Your task to perform on an android device: turn off improve location accuracy Image 0: 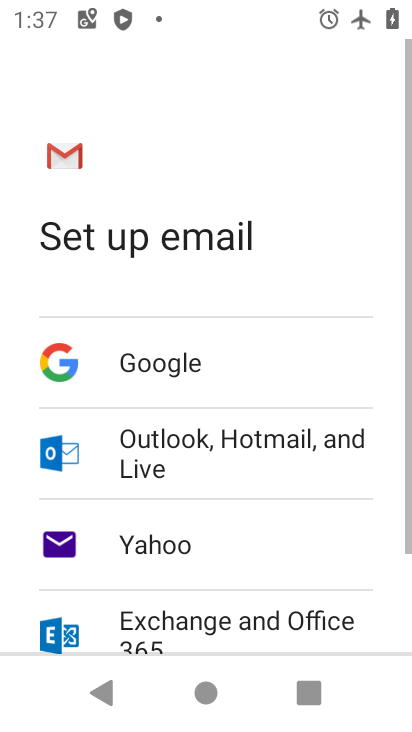
Step 0: press home button
Your task to perform on an android device: turn off improve location accuracy Image 1: 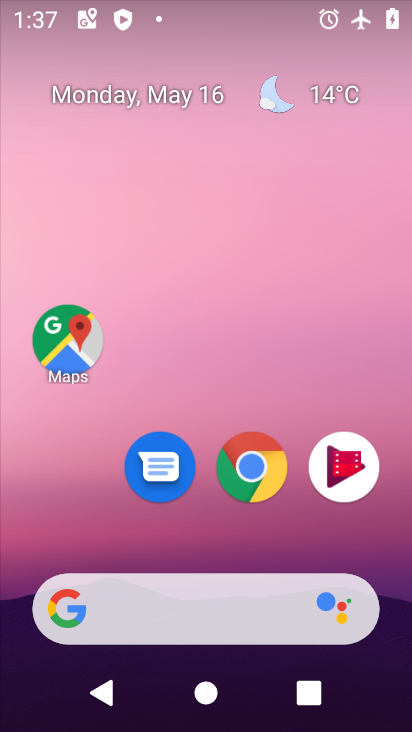
Step 1: drag from (298, 509) to (278, 202)
Your task to perform on an android device: turn off improve location accuracy Image 2: 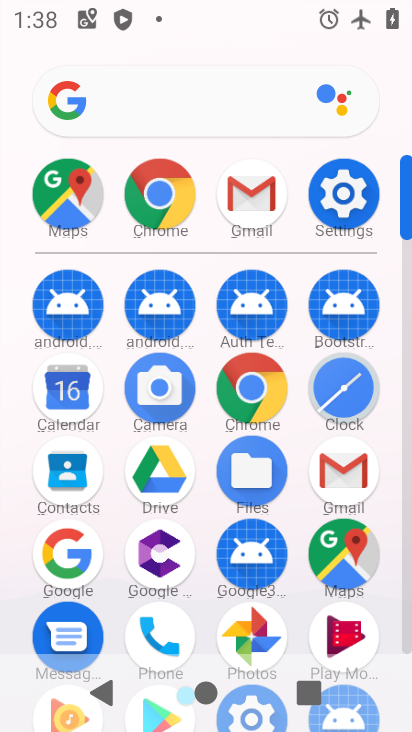
Step 2: click (343, 199)
Your task to perform on an android device: turn off improve location accuracy Image 3: 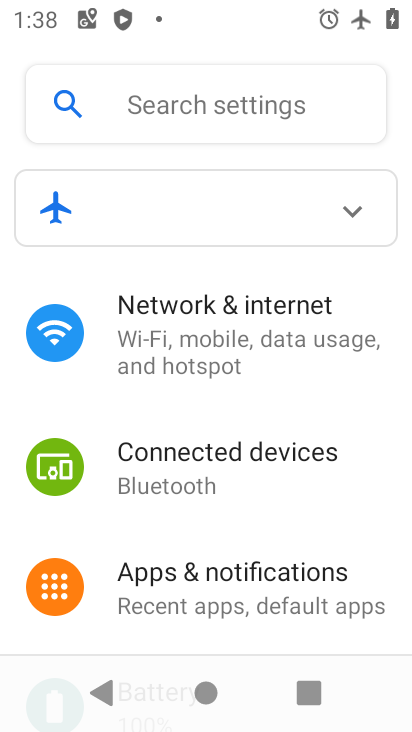
Step 3: drag from (175, 527) to (235, 248)
Your task to perform on an android device: turn off improve location accuracy Image 4: 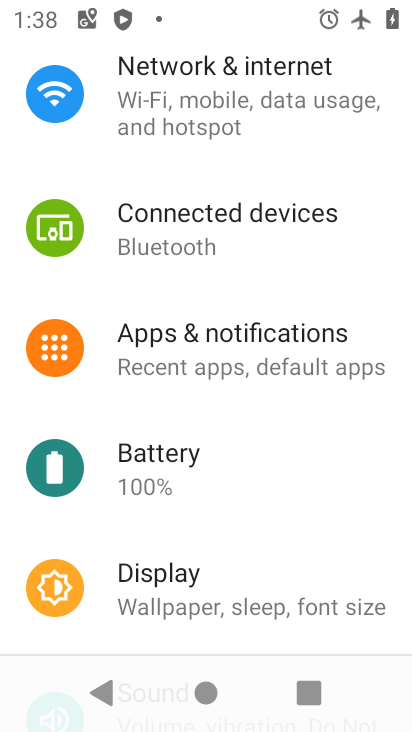
Step 4: drag from (174, 575) to (234, 284)
Your task to perform on an android device: turn off improve location accuracy Image 5: 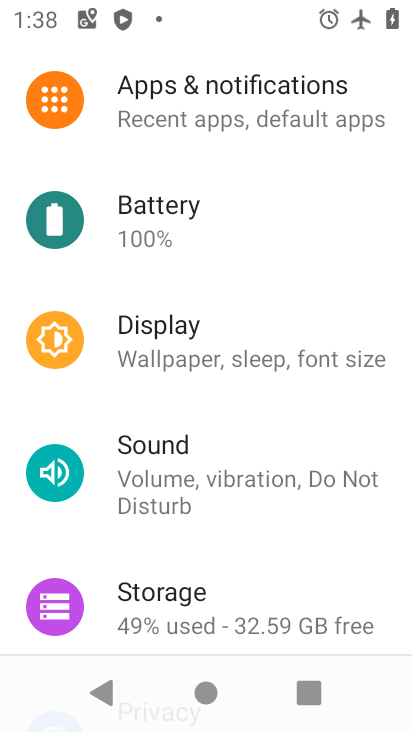
Step 5: drag from (198, 568) to (245, 263)
Your task to perform on an android device: turn off improve location accuracy Image 6: 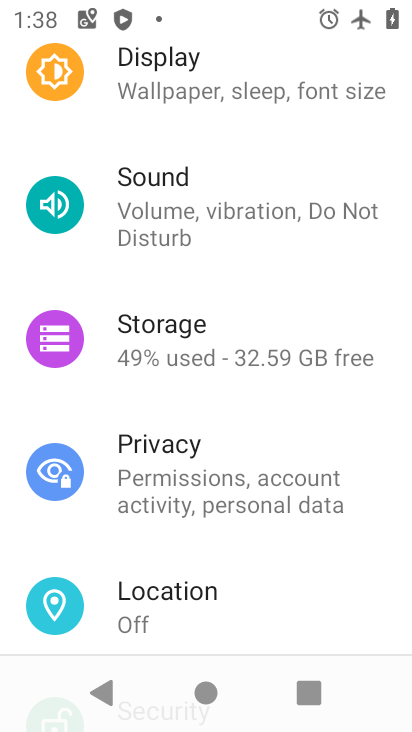
Step 6: drag from (205, 547) to (233, 341)
Your task to perform on an android device: turn off improve location accuracy Image 7: 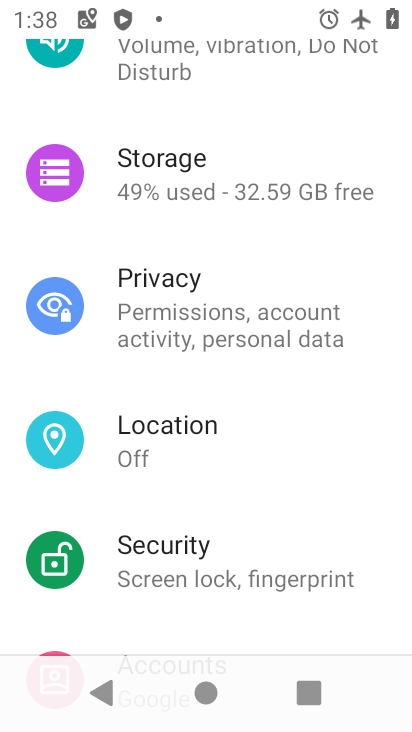
Step 7: click (167, 431)
Your task to perform on an android device: turn off improve location accuracy Image 8: 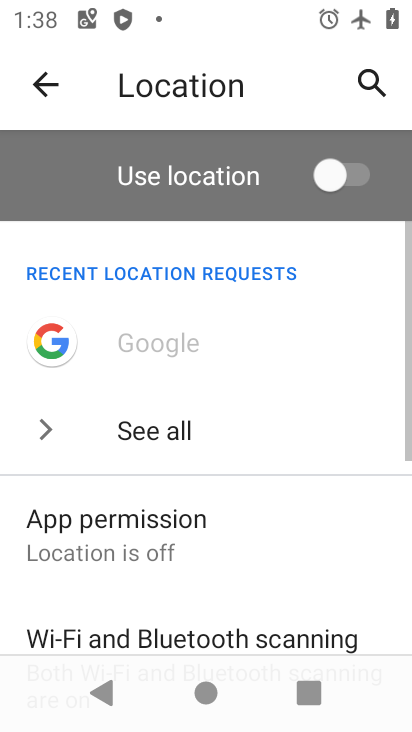
Step 8: drag from (223, 570) to (286, 251)
Your task to perform on an android device: turn off improve location accuracy Image 9: 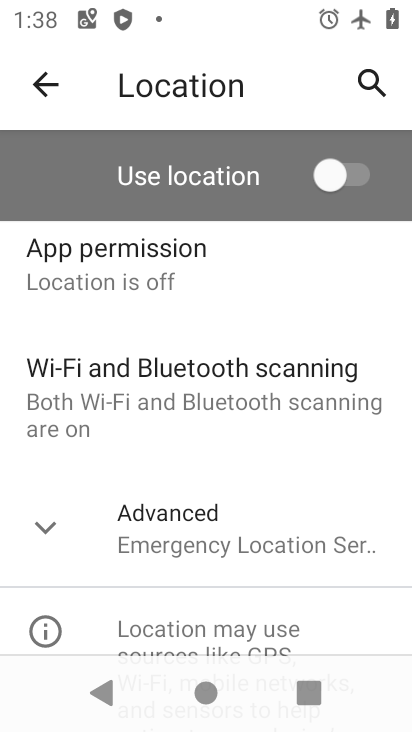
Step 9: drag from (217, 583) to (269, 358)
Your task to perform on an android device: turn off improve location accuracy Image 10: 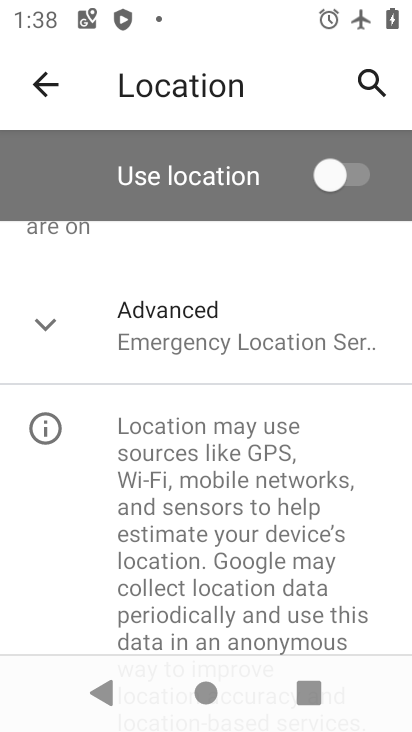
Step 10: click (178, 340)
Your task to perform on an android device: turn off improve location accuracy Image 11: 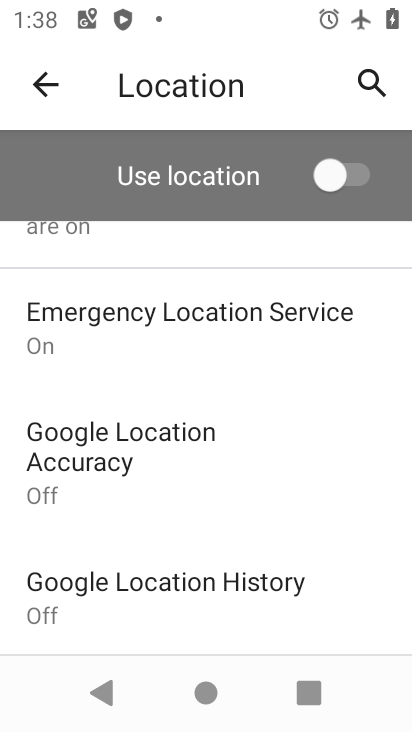
Step 11: click (147, 472)
Your task to perform on an android device: turn off improve location accuracy Image 12: 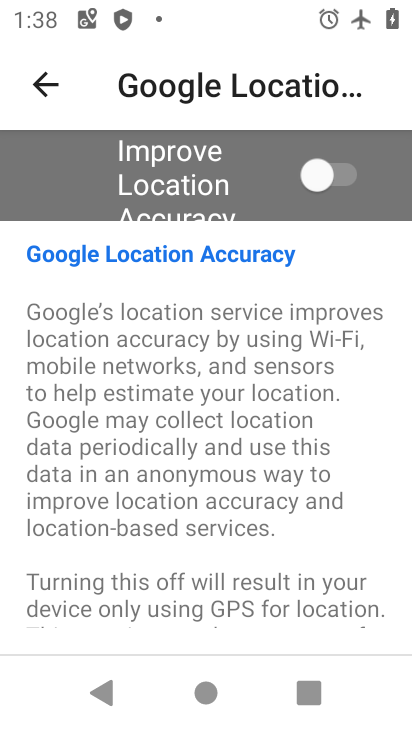
Step 12: task complete